Your task to perform on an android device: Go to sound settings Image 0: 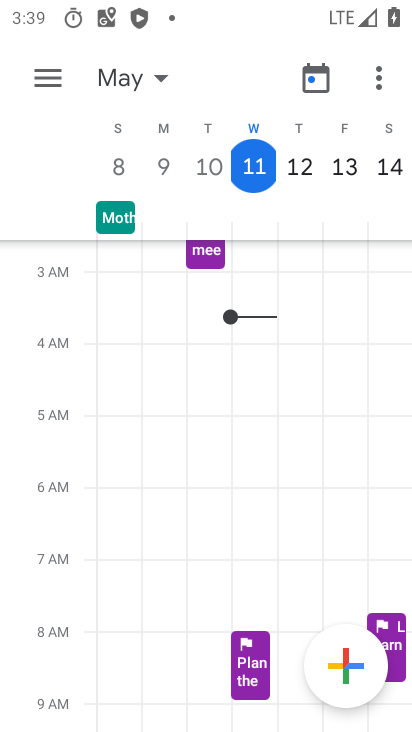
Step 0: press home button
Your task to perform on an android device: Go to sound settings Image 1: 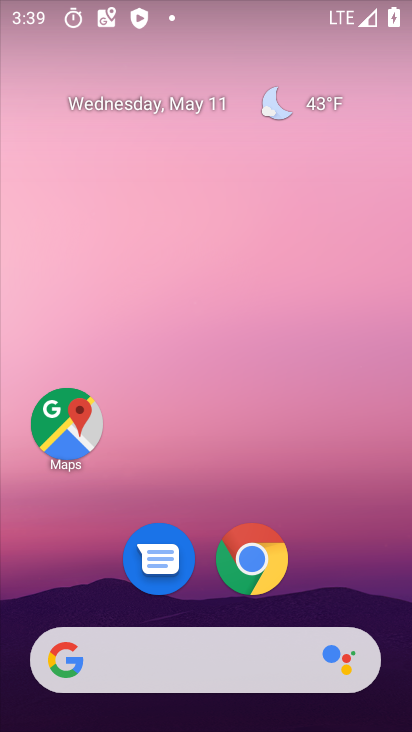
Step 1: drag from (336, 512) to (228, 57)
Your task to perform on an android device: Go to sound settings Image 2: 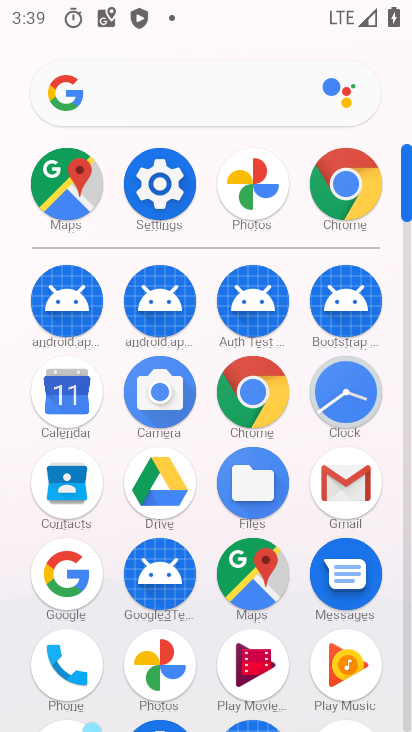
Step 2: click (173, 186)
Your task to perform on an android device: Go to sound settings Image 3: 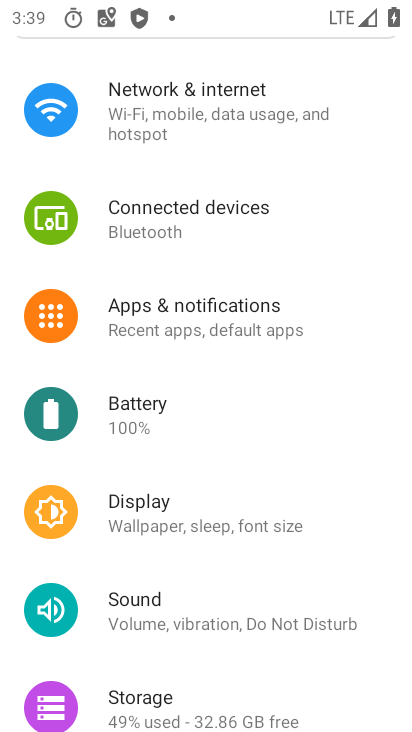
Step 3: click (206, 611)
Your task to perform on an android device: Go to sound settings Image 4: 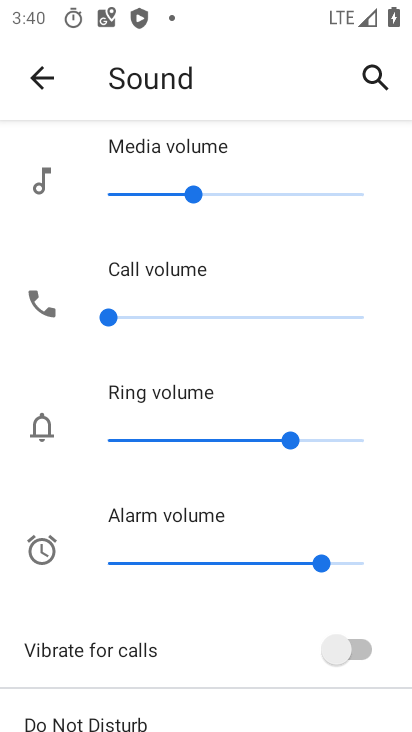
Step 4: task complete